Your task to perform on an android device: Open Google Chrome and click the shortcut for Amazon.com Image 0: 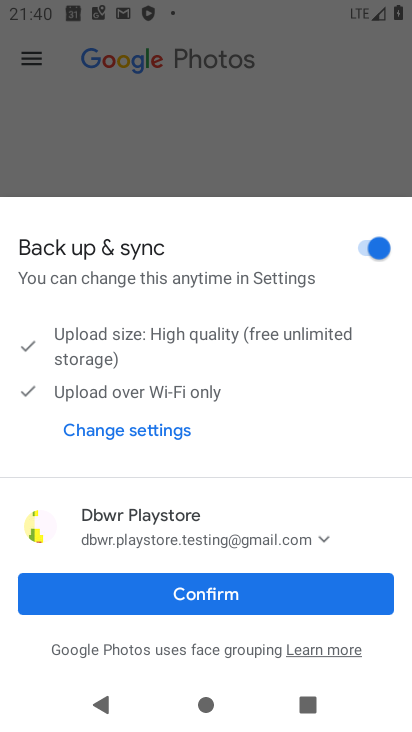
Step 0: press home button
Your task to perform on an android device: Open Google Chrome and click the shortcut for Amazon.com Image 1: 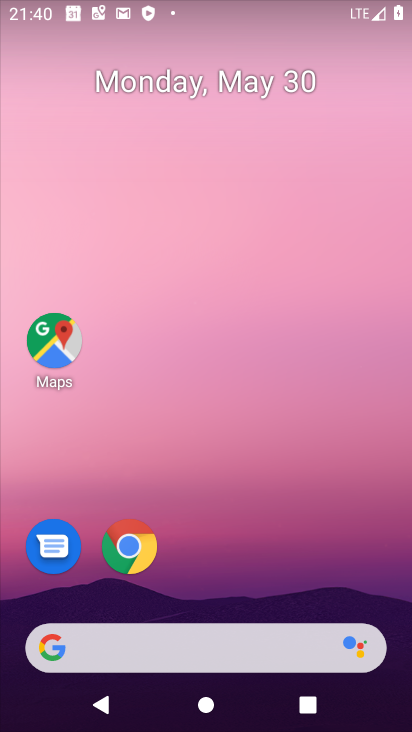
Step 1: drag from (355, 565) to (322, 58)
Your task to perform on an android device: Open Google Chrome and click the shortcut for Amazon.com Image 2: 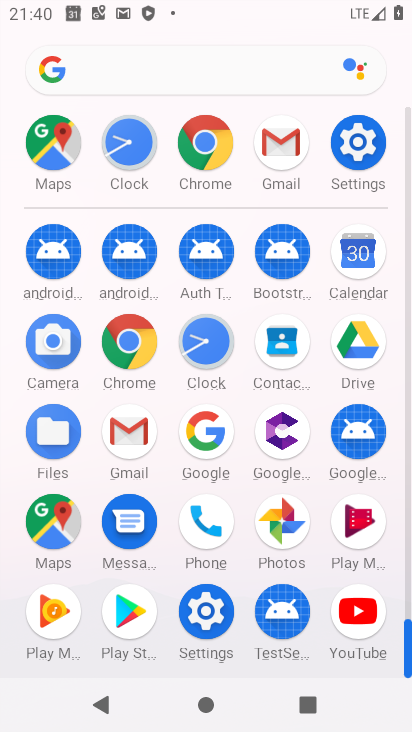
Step 2: click (140, 351)
Your task to perform on an android device: Open Google Chrome and click the shortcut for Amazon.com Image 3: 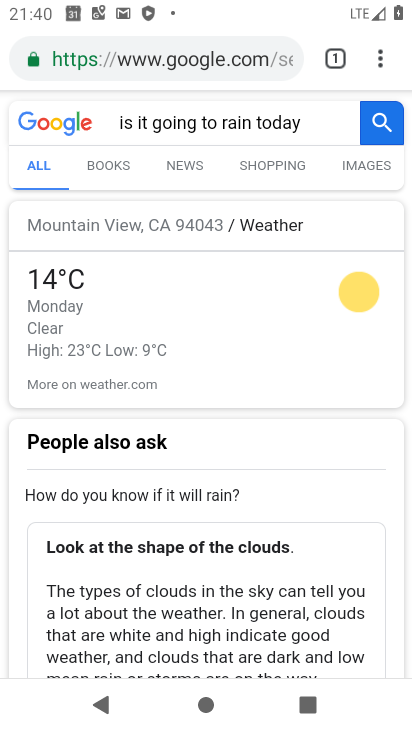
Step 3: click (343, 55)
Your task to perform on an android device: Open Google Chrome and click the shortcut for Amazon.com Image 4: 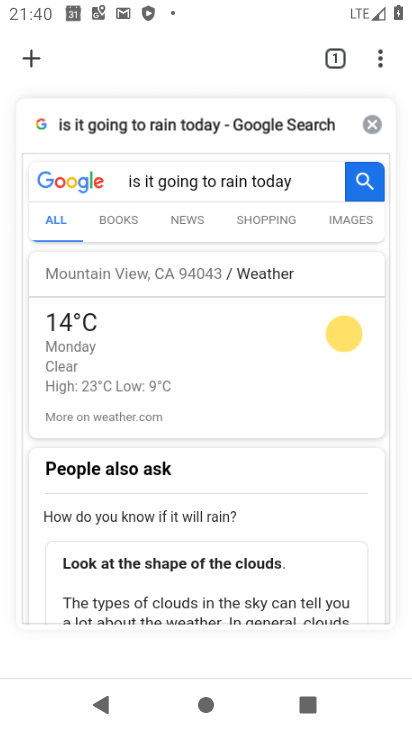
Step 4: click (42, 59)
Your task to perform on an android device: Open Google Chrome and click the shortcut for Amazon.com Image 5: 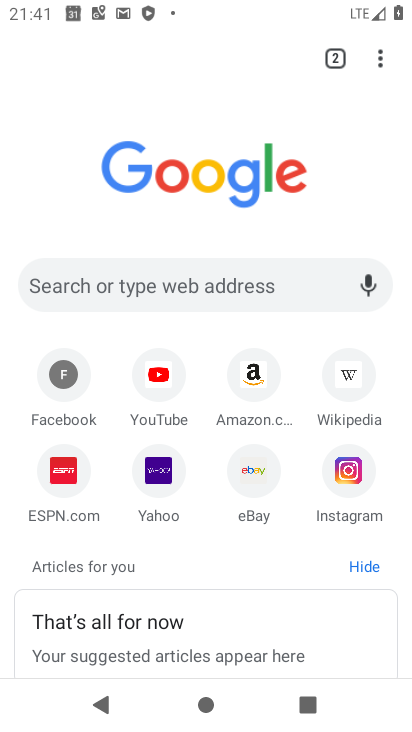
Step 5: click (223, 369)
Your task to perform on an android device: Open Google Chrome and click the shortcut for Amazon.com Image 6: 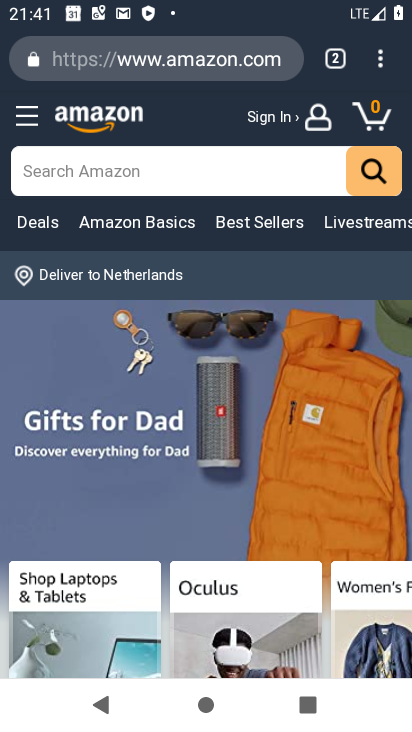
Step 6: task complete